Your task to perform on an android device: Do I have any events tomorrow? Image 0: 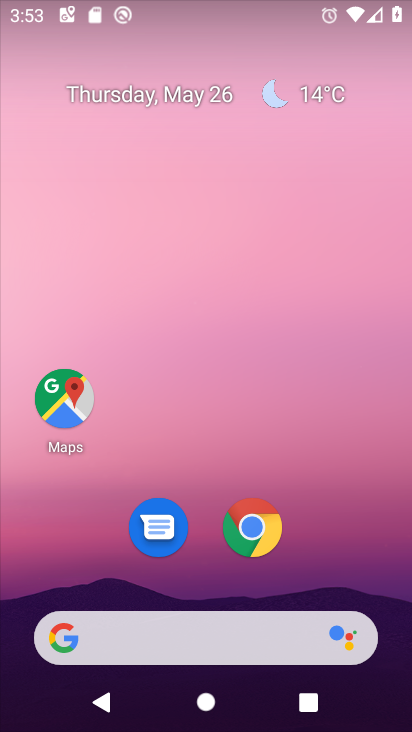
Step 0: drag from (341, 572) to (275, 79)
Your task to perform on an android device: Do I have any events tomorrow? Image 1: 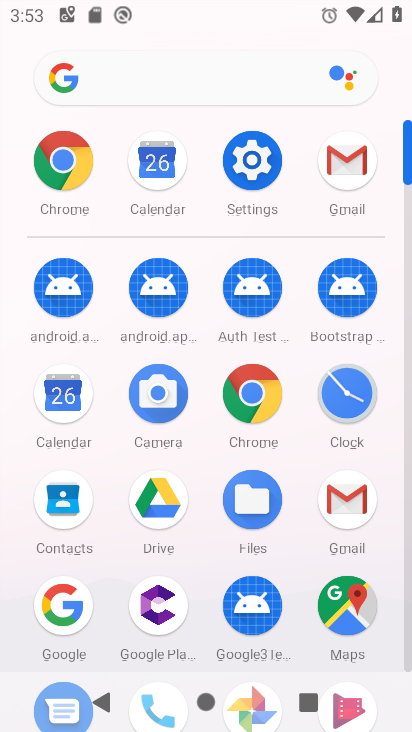
Step 1: click (59, 403)
Your task to perform on an android device: Do I have any events tomorrow? Image 2: 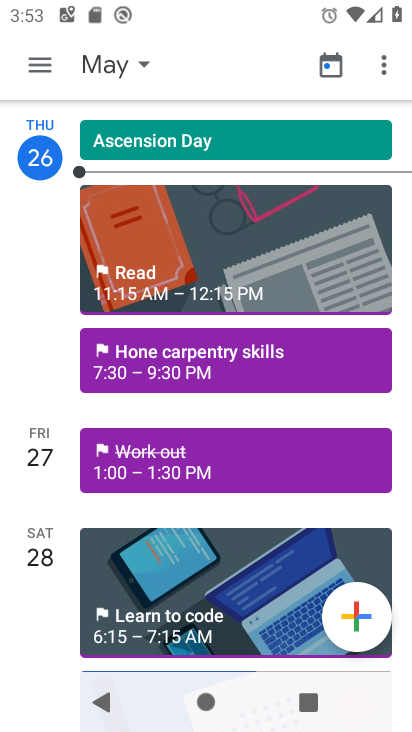
Step 2: click (120, 68)
Your task to perform on an android device: Do I have any events tomorrow? Image 3: 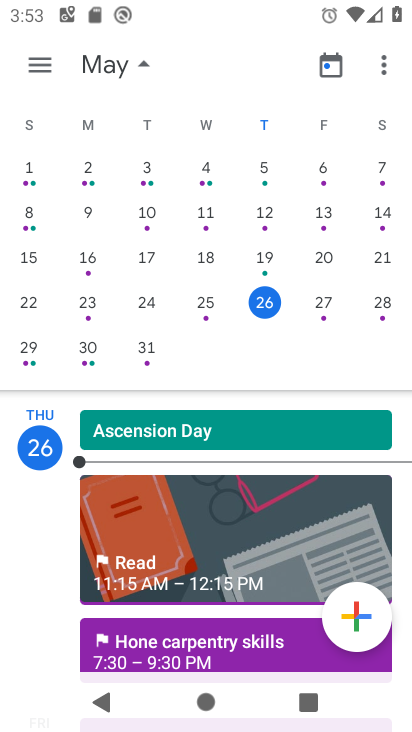
Step 3: click (120, 68)
Your task to perform on an android device: Do I have any events tomorrow? Image 4: 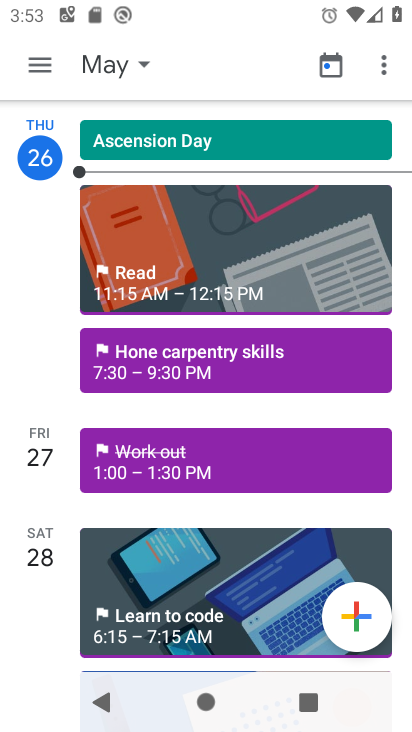
Step 4: click (40, 60)
Your task to perform on an android device: Do I have any events tomorrow? Image 5: 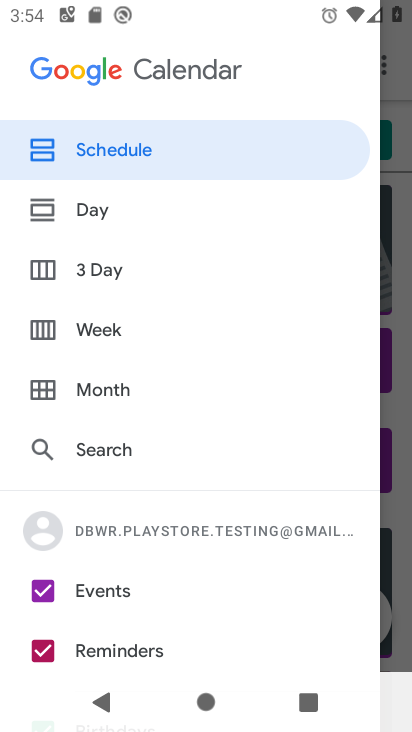
Step 5: drag from (131, 556) to (97, 295)
Your task to perform on an android device: Do I have any events tomorrow? Image 6: 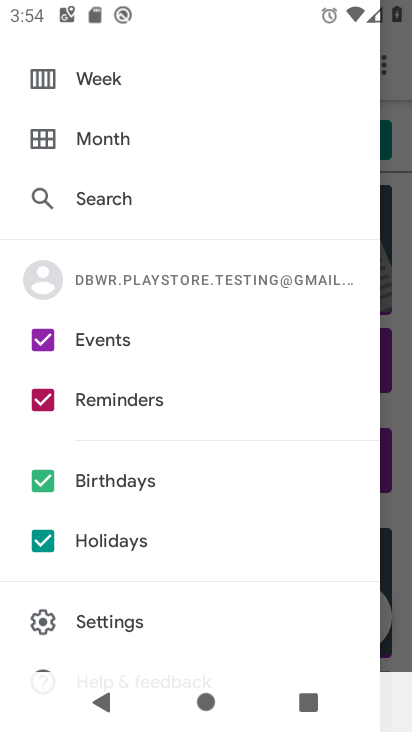
Step 6: click (40, 535)
Your task to perform on an android device: Do I have any events tomorrow? Image 7: 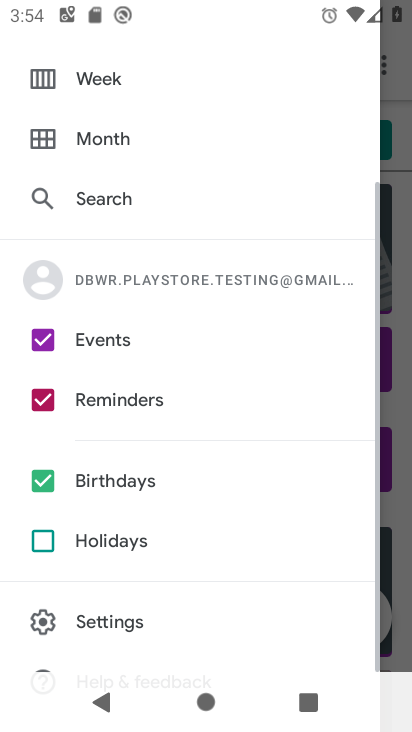
Step 7: click (37, 484)
Your task to perform on an android device: Do I have any events tomorrow? Image 8: 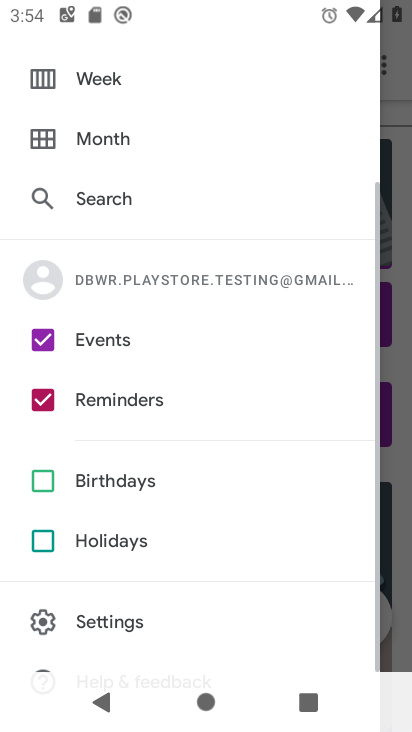
Step 8: click (39, 402)
Your task to perform on an android device: Do I have any events tomorrow? Image 9: 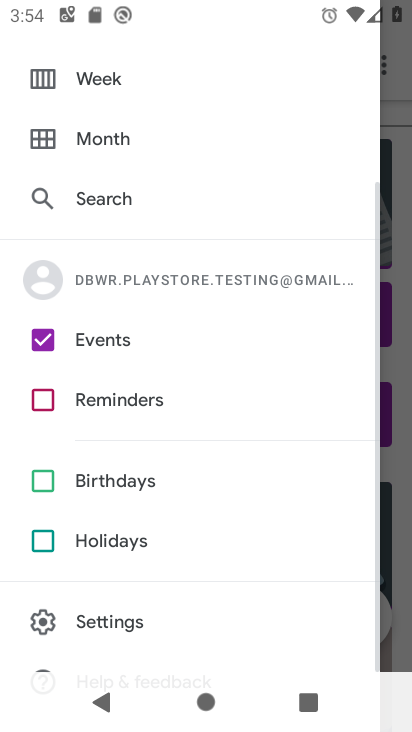
Step 9: drag from (141, 91) to (165, 522)
Your task to perform on an android device: Do I have any events tomorrow? Image 10: 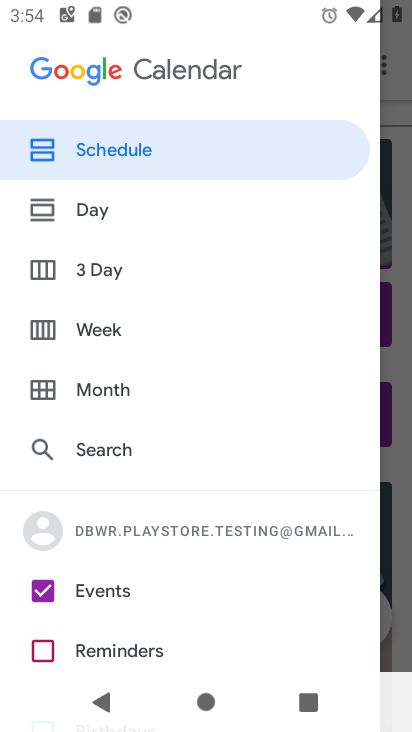
Step 10: click (115, 214)
Your task to perform on an android device: Do I have any events tomorrow? Image 11: 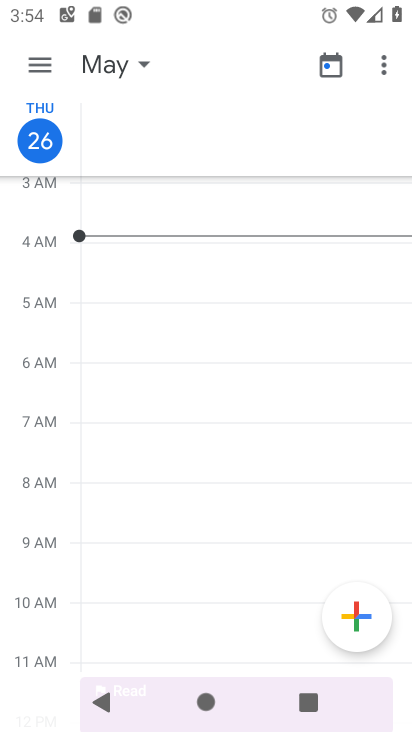
Step 11: click (129, 70)
Your task to perform on an android device: Do I have any events tomorrow? Image 12: 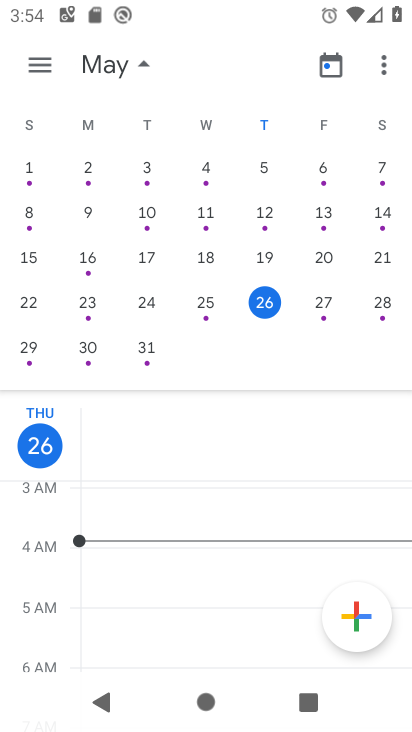
Step 12: click (321, 310)
Your task to perform on an android device: Do I have any events tomorrow? Image 13: 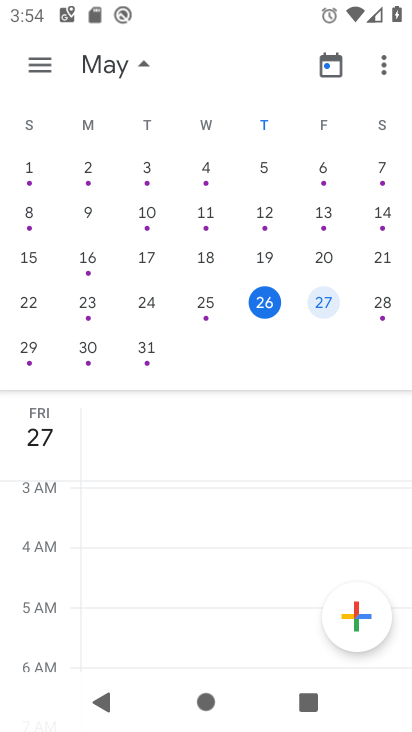
Step 13: task complete